Your task to perform on an android device: Open maps Image 0: 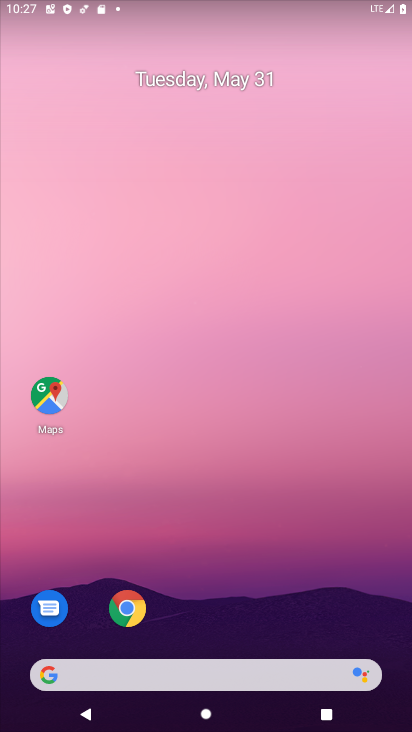
Step 0: drag from (189, 646) to (257, 49)
Your task to perform on an android device: Open maps Image 1: 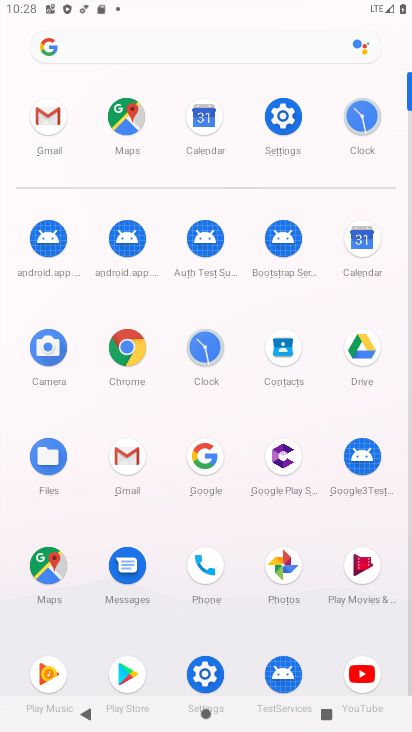
Step 1: click (59, 567)
Your task to perform on an android device: Open maps Image 2: 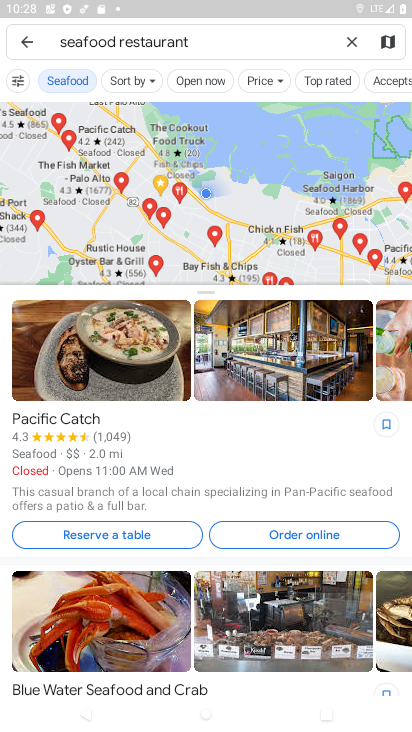
Step 2: task complete